Your task to perform on an android device: Open Amazon Image 0: 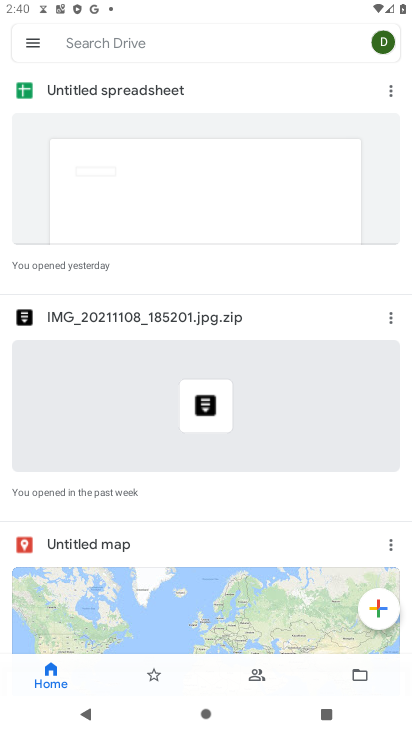
Step 0: press home button
Your task to perform on an android device: Open Amazon Image 1: 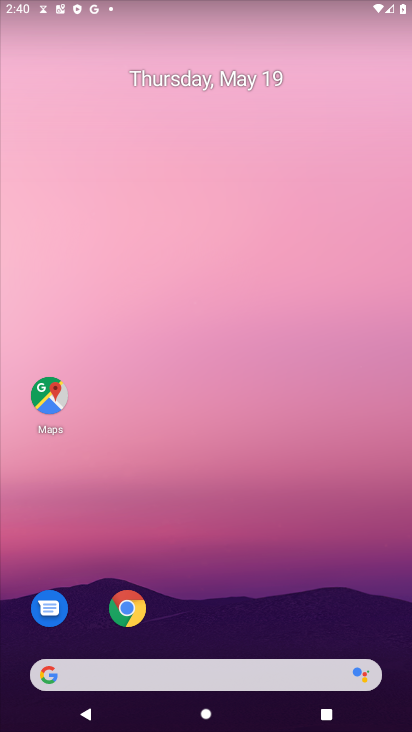
Step 1: click (142, 609)
Your task to perform on an android device: Open Amazon Image 2: 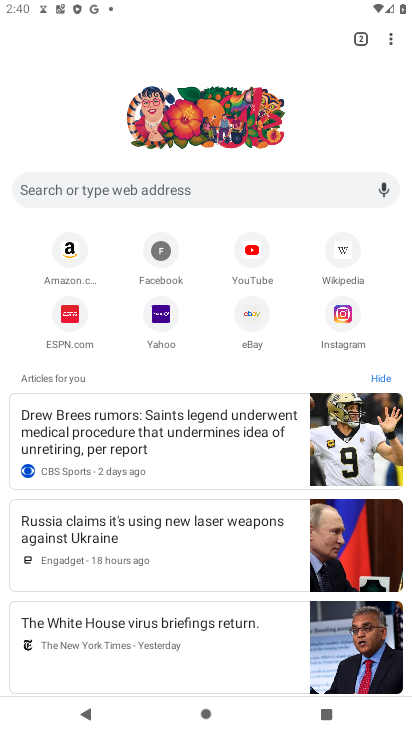
Step 2: click (72, 249)
Your task to perform on an android device: Open Amazon Image 3: 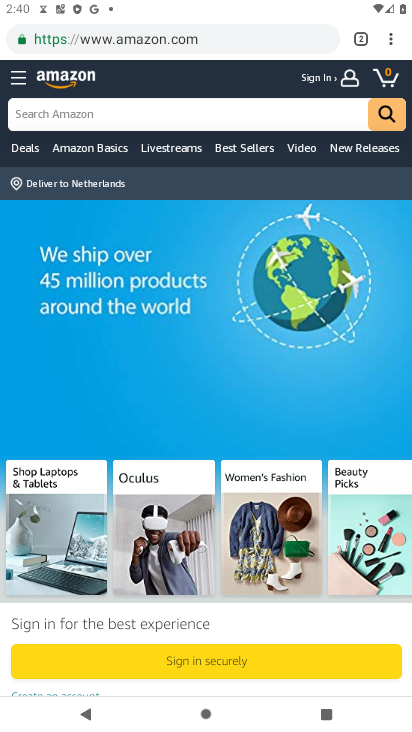
Step 3: task complete